Your task to perform on an android device: See recent photos Image 0: 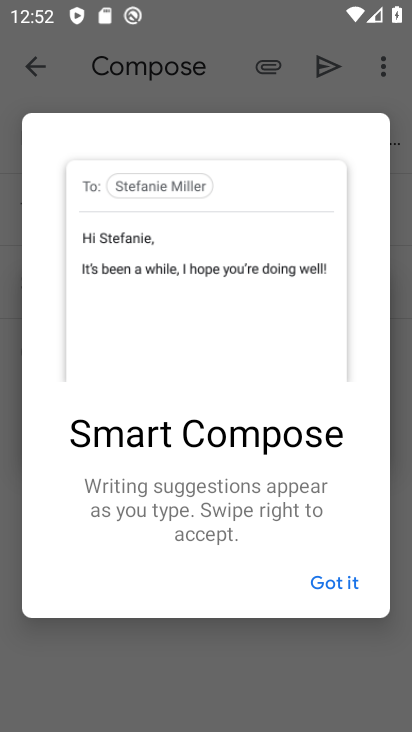
Step 0: press home button
Your task to perform on an android device: See recent photos Image 1: 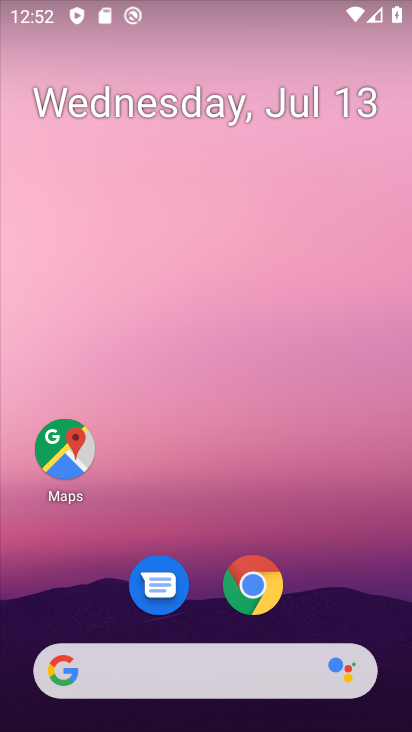
Step 1: drag from (327, 576) to (288, 5)
Your task to perform on an android device: See recent photos Image 2: 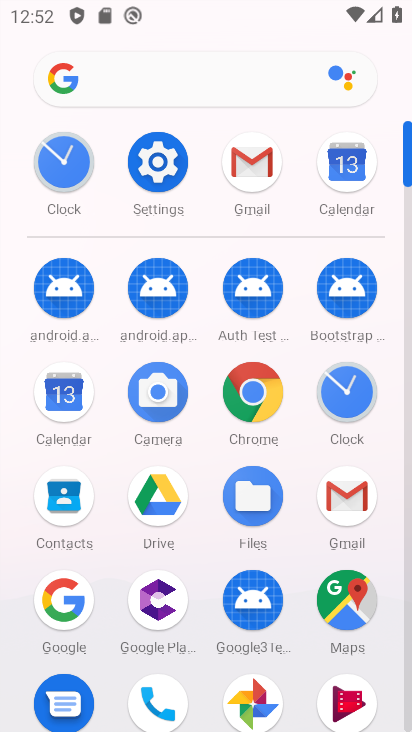
Step 2: drag from (206, 508) to (205, 143)
Your task to perform on an android device: See recent photos Image 3: 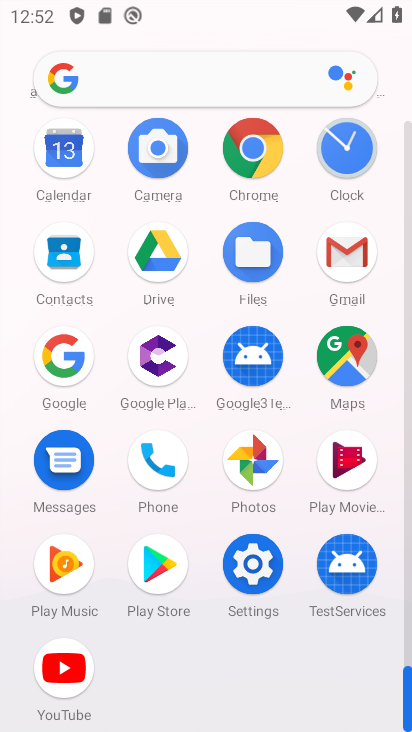
Step 3: click (246, 457)
Your task to perform on an android device: See recent photos Image 4: 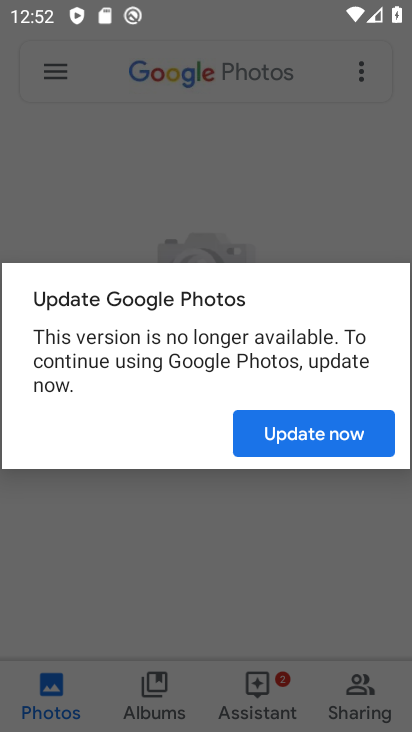
Step 4: click (283, 431)
Your task to perform on an android device: See recent photos Image 5: 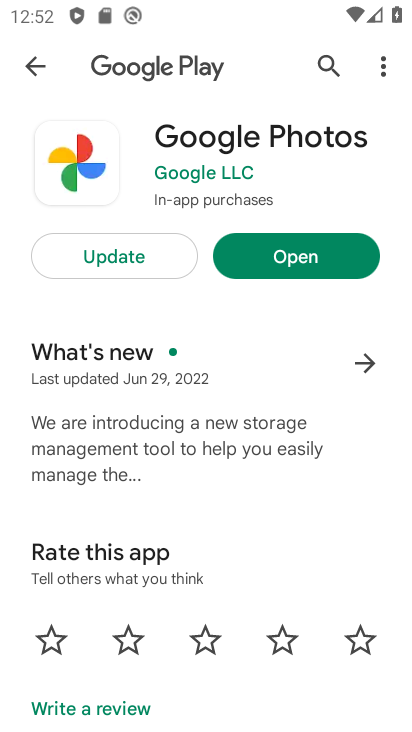
Step 5: click (344, 266)
Your task to perform on an android device: See recent photos Image 6: 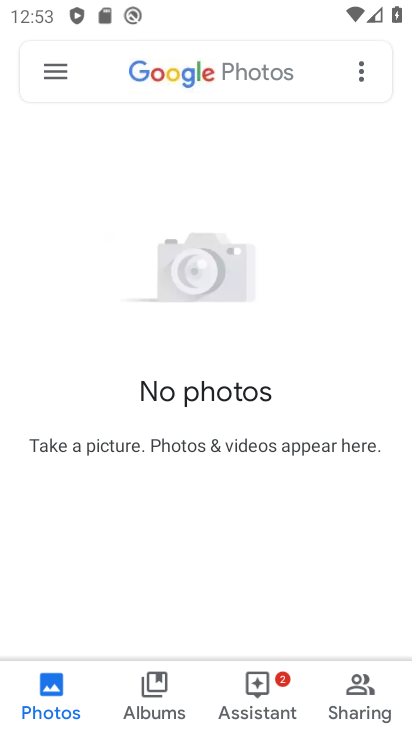
Step 6: task complete